Your task to perform on an android device: change notification settings in the gmail app Image 0: 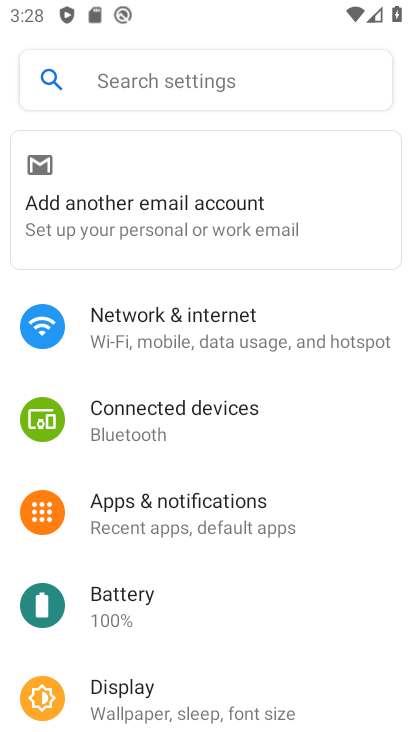
Step 0: press home button
Your task to perform on an android device: change notification settings in the gmail app Image 1: 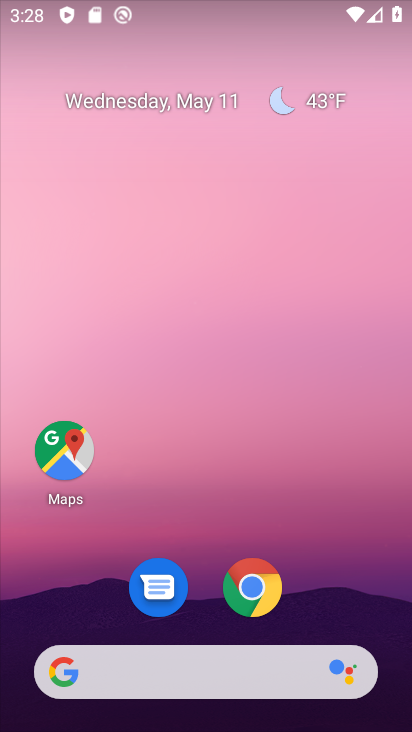
Step 1: drag from (316, 524) to (256, 251)
Your task to perform on an android device: change notification settings in the gmail app Image 2: 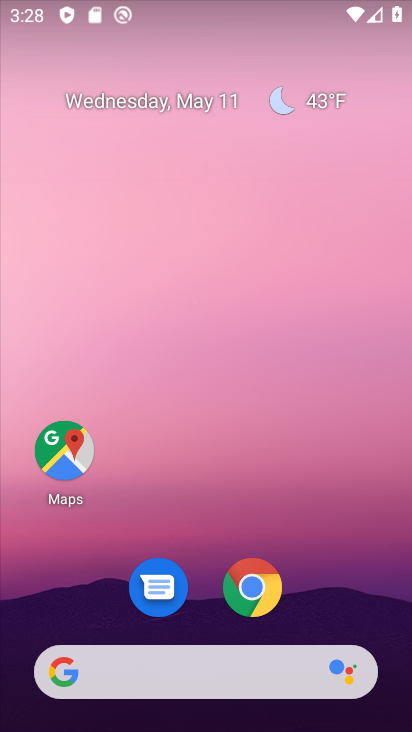
Step 2: drag from (308, 601) to (315, 69)
Your task to perform on an android device: change notification settings in the gmail app Image 3: 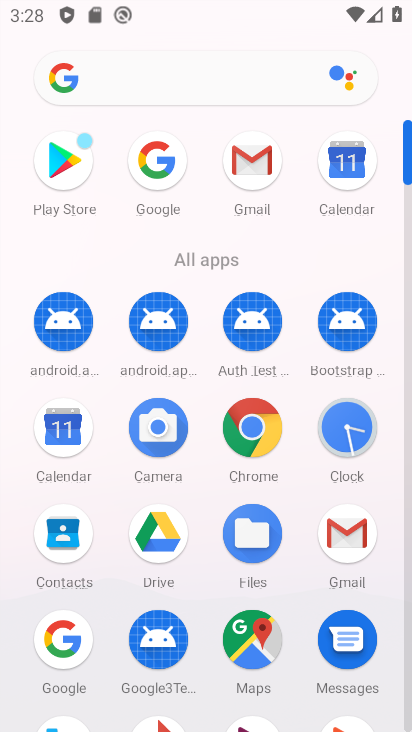
Step 3: click (257, 172)
Your task to perform on an android device: change notification settings in the gmail app Image 4: 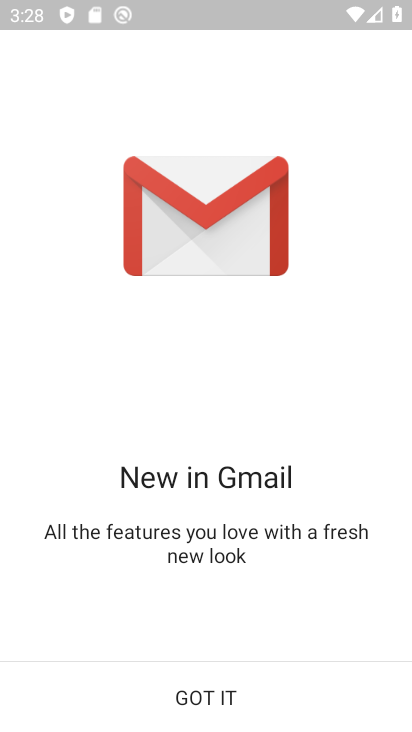
Step 4: task complete